Your task to perform on an android device: toggle javascript in the chrome app Image 0: 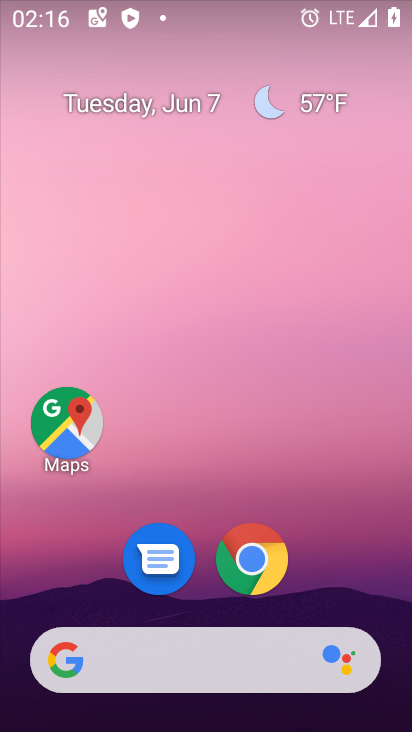
Step 0: click (252, 560)
Your task to perform on an android device: toggle javascript in the chrome app Image 1: 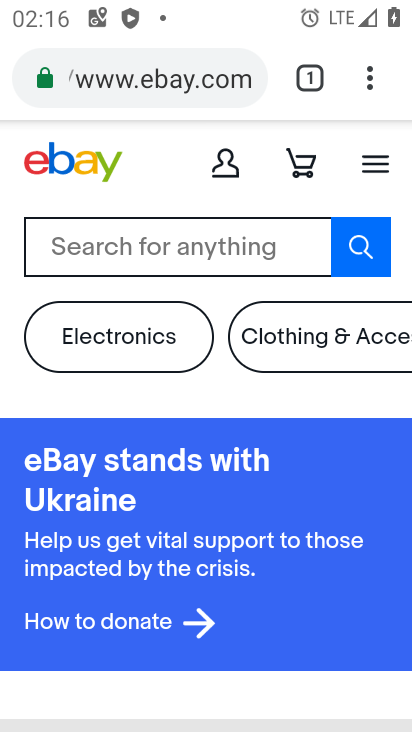
Step 1: click (371, 80)
Your task to perform on an android device: toggle javascript in the chrome app Image 2: 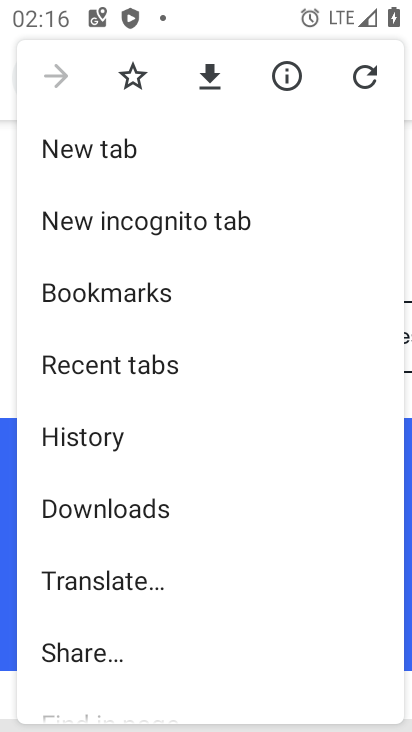
Step 2: drag from (113, 481) to (137, 365)
Your task to perform on an android device: toggle javascript in the chrome app Image 3: 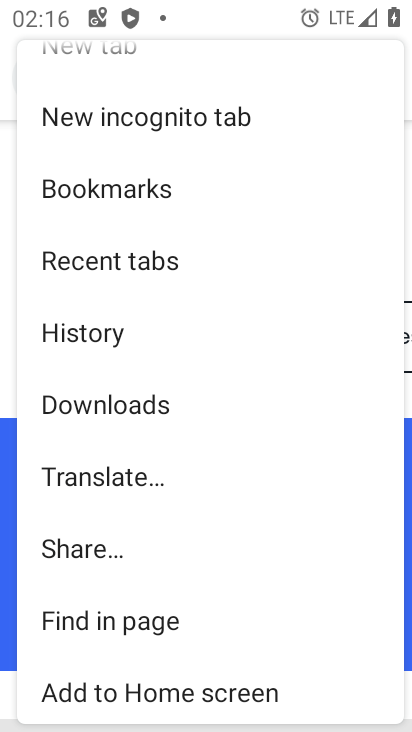
Step 3: drag from (120, 516) to (148, 397)
Your task to perform on an android device: toggle javascript in the chrome app Image 4: 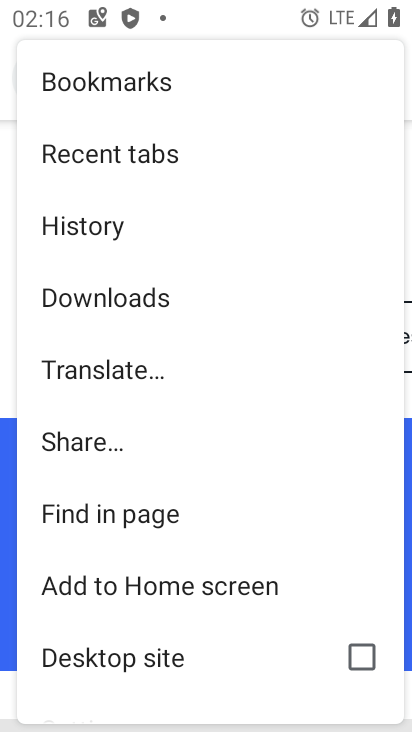
Step 4: drag from (106, 479) to (142, 378)
Your task to perform on an android device: toggle javascript in the chrome app Image 5: 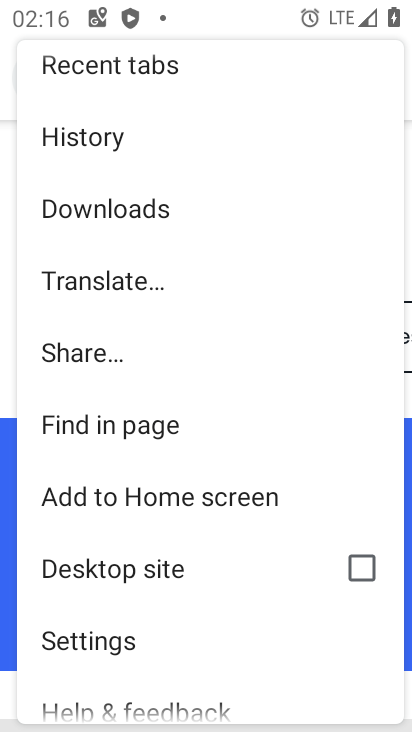
Step 5: drag from (120, 459) to (154, 356)
Your task to perform on an android device: toggle javascript in the chrome app Image 6: 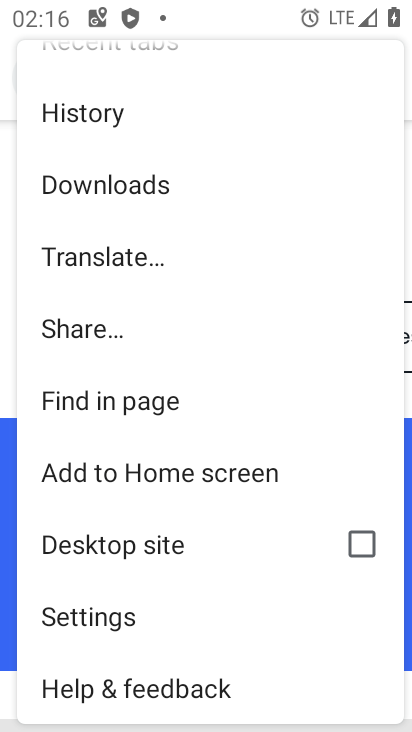
Step 6: click (122, 624)
Your task to perform on an android device: toggle javascript in the chrome app Image 7: 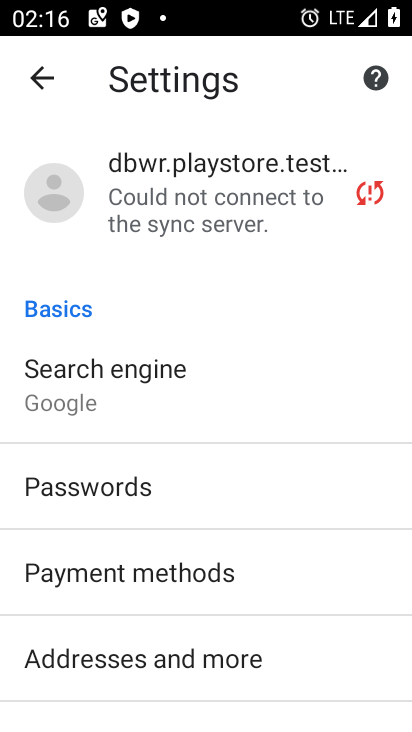
Step 7: drag from (257, 583) to (291, 420)
Your task to perform on an android device: toggle javascript in the chrome app Image 8: 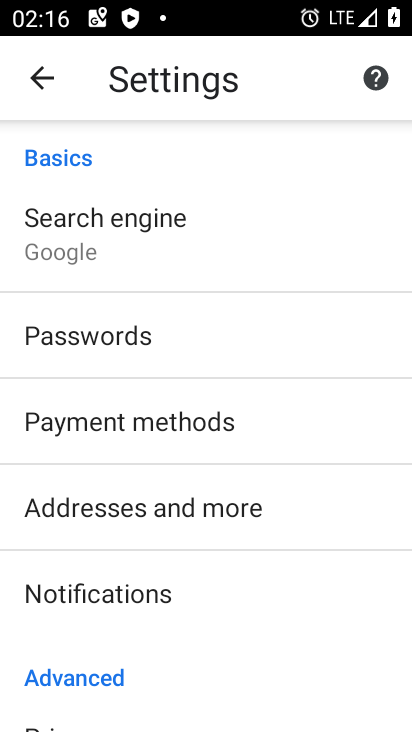
Step 8: drag from (210, 591) to (243, 439)
Your task to perform on an android device: toggle javascript in the chrome app Image 9: 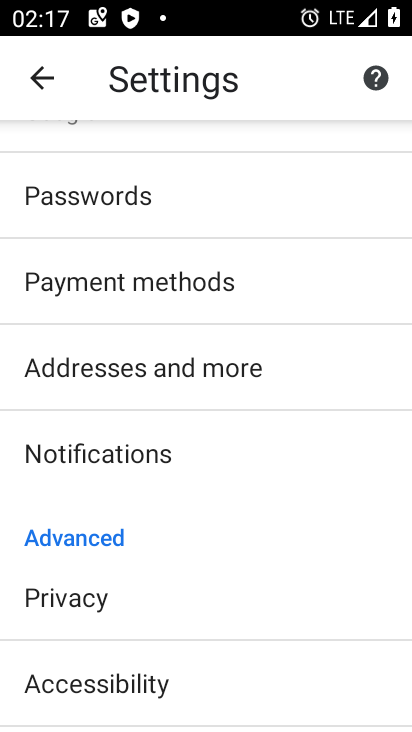
Step 9: drag from (189, 615) to (233, 432)
Your task to perform on an android device: toggle javascript in the chrome app Image 10: 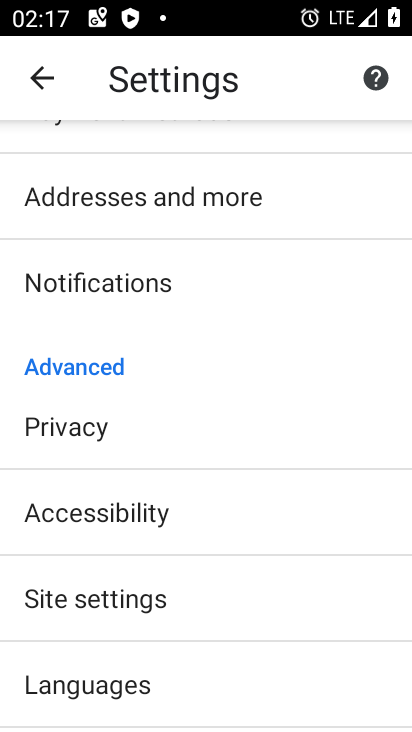
Step 10: drag from (192, 584) to (206, 439)
Your task to perform on an android device: toggle javascript in the chrome app Image 11: 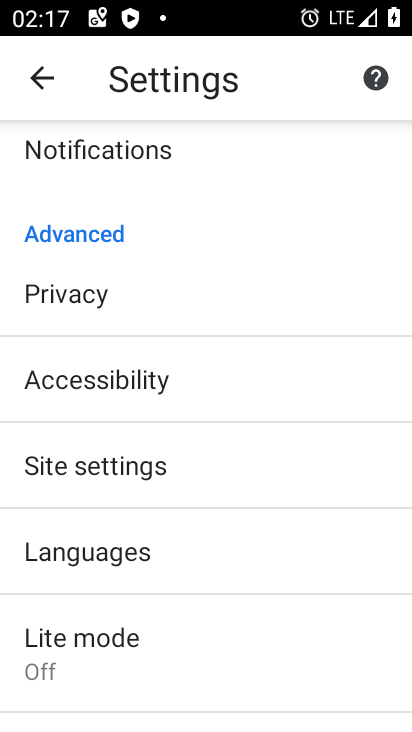
Step 11: click (138, 467)
Your task to perform on an android device: toggle javascript in the chrome app Image 12: 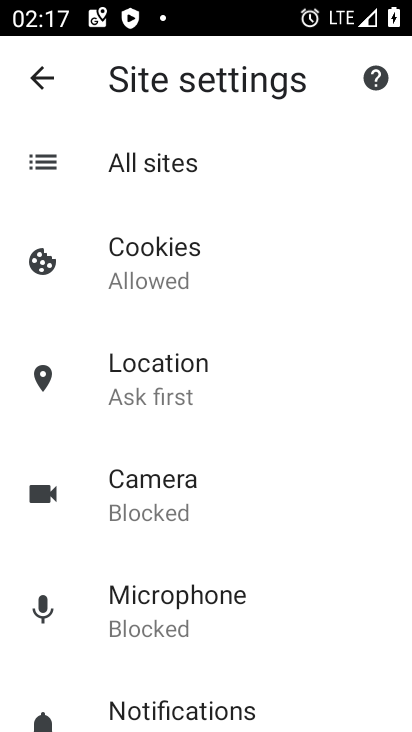
Step 12: drag from (200, 537) to (254, 419)
Your task to perform on an android device: toggle javascript in the chrome app Image 13: 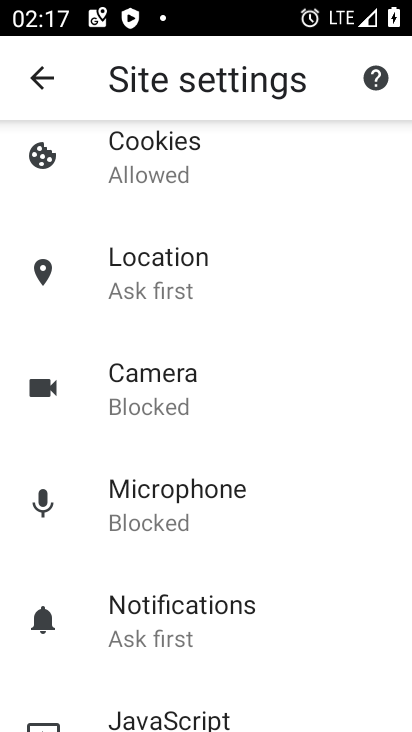
Step 13: drag from (211, 554) to (237, 416)
Your task to perform on an android device: toggle javascript in the chrome app Image 14: 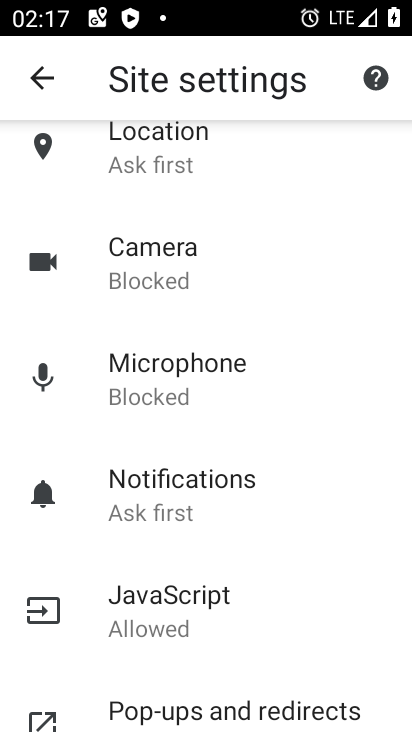
Step 14: click (207, 589)
Your task to perform on an android device: toggle javascript in the chrome app Image 15: 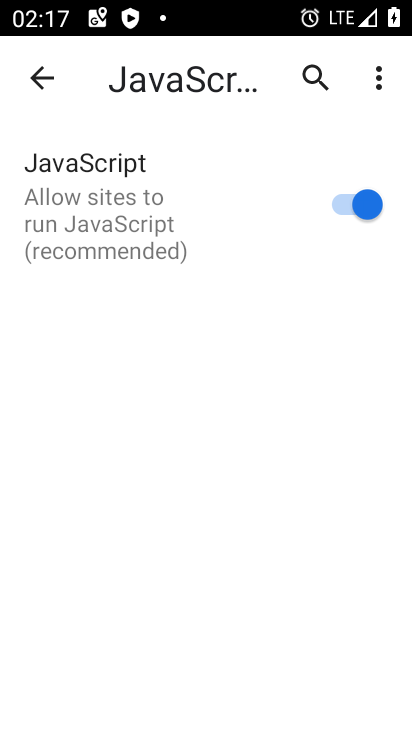
Step 15: click (352, 208)
Your task to perform on an android device: toggle javascript in the chrome app Image 16: 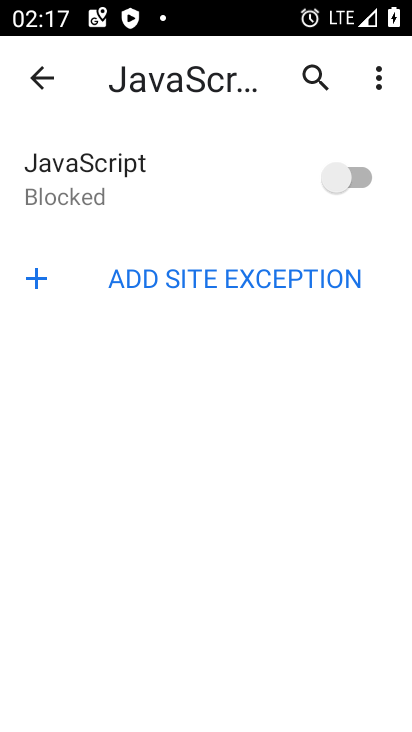
Step 16: task complete